Your task to perform on an android device: Open Google Maps Image 0: 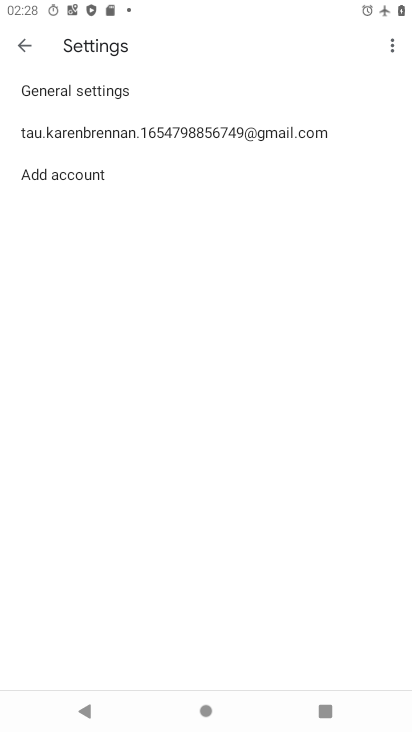
Step 0: drag from (113, 657) to (128, 416)
Your task to perform on an android device: Open Google Maps Image 1: 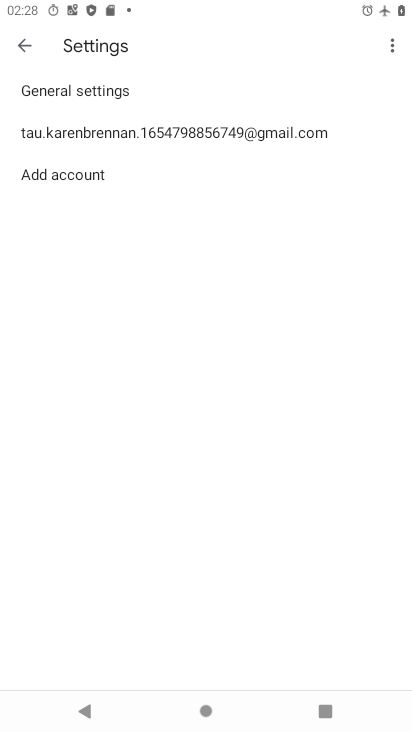
Step 1: press home button
Your task to perform on an android device: Open Google Maps Image 2: 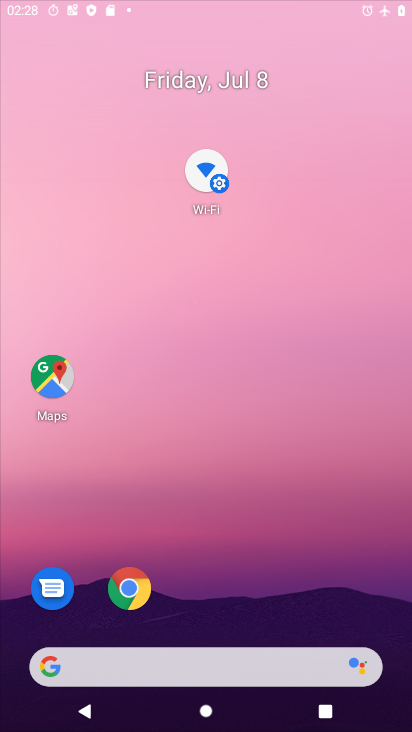
Step 2: drag from (206, 639) to (191, 39)
Your task to perform on an android device: Open Google Maps Image 3: 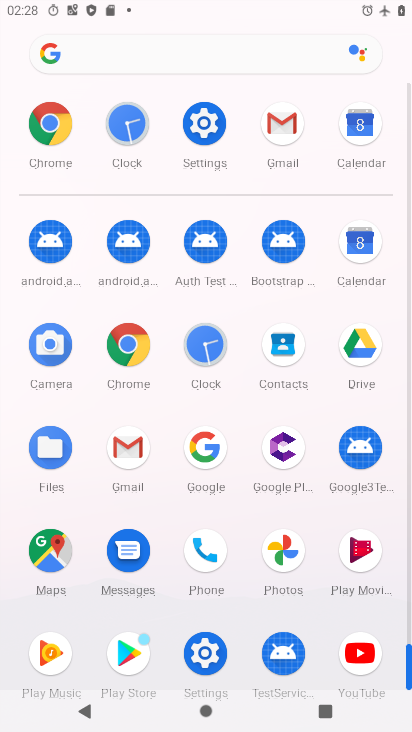
Step 3: click (50, 551)
Your task to perform on an android device: Open Google Maps Image 4: 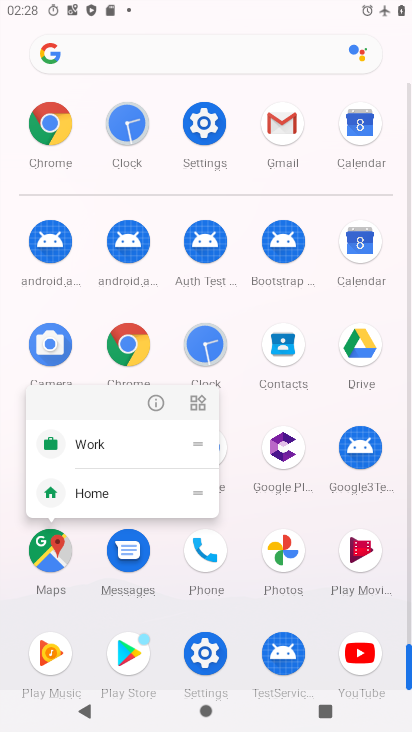
Step 4: click (159, 402)
Your task to perform on an android device: Open Google Maps Image 5: 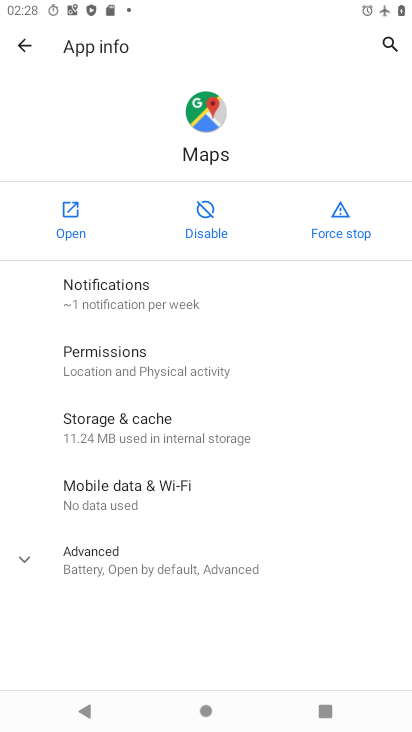
Step 5: click (51, 203)
Your task to perform on an android device: Open Google Maps Image 6: 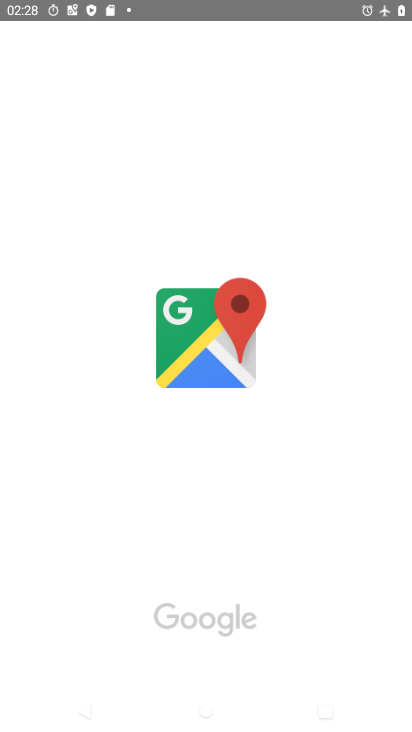
Step 6: task complete